Your task to perform on an android device: Go to Google maps Image 0: 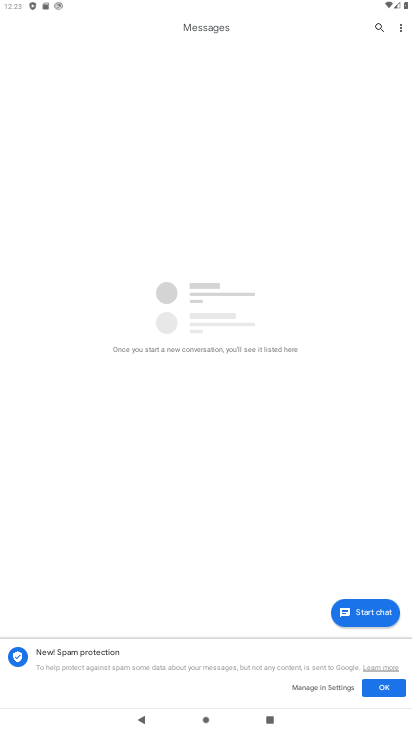
Step 0: press home button
Your task to perform on an android device: Go to Google maps Image 1: 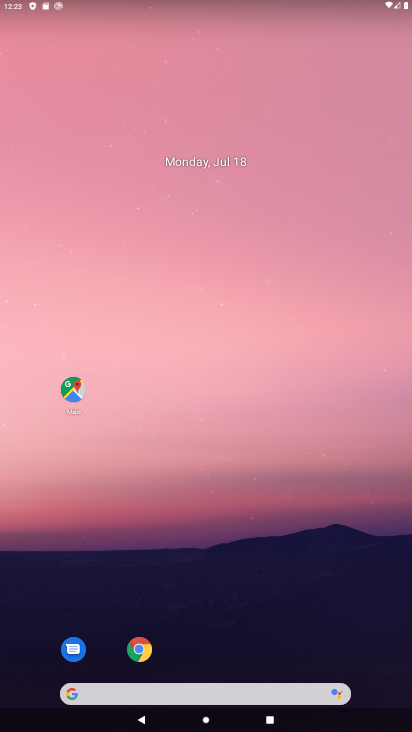
Step 1: click (74, 405)
Your task to perform on an android device: Go to Google maps Image 2: 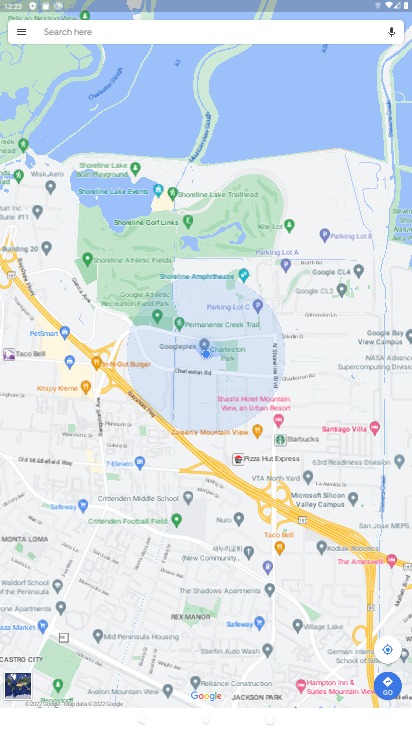
Step 2: task complete